Your task to perform on an android device: allow cookies in the chrome app Image 0: 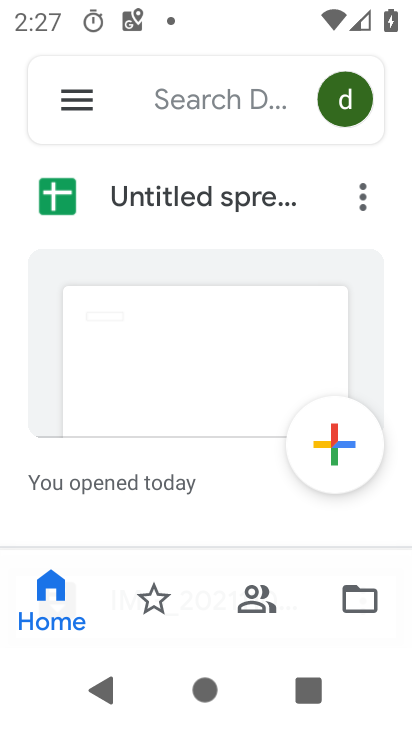
Step 0: press back button
Your task to perform on an android device: allow cookies in the chrome app Image 1: 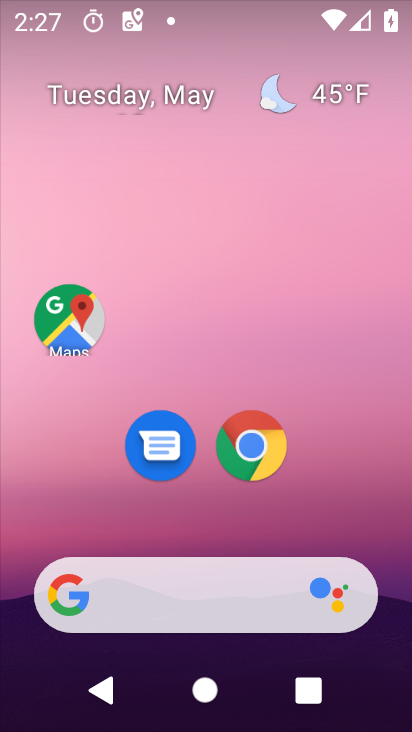
Step 1: click (255, 449)
Your task to perform on an android device: allow cookies in the chrome app Image 2: 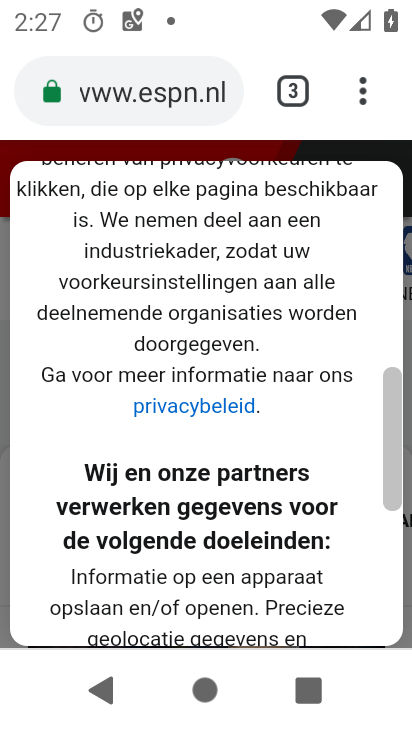
Step 2: drag from (366, 83) to (134, 474)
Your task to perform on an android device: allow cookies in the chrome app Image 3: 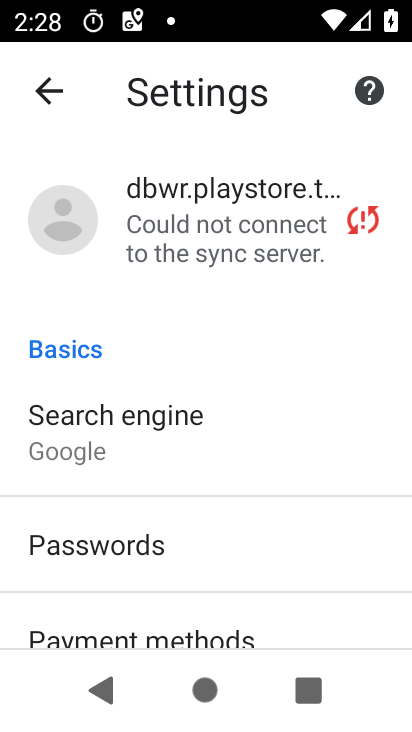
Step 3: drag from (167, 605) to (242, 318)
Your task to perform on an android device: allow cookies in the chrome app Image 4: 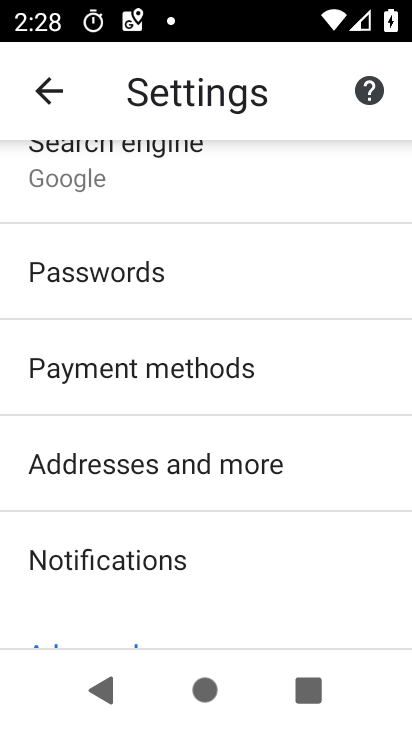
Step 4: drag from (202, 496) to (297, 551)
Your task to perform on an android device: allow cookies in the chrome app Image 5: 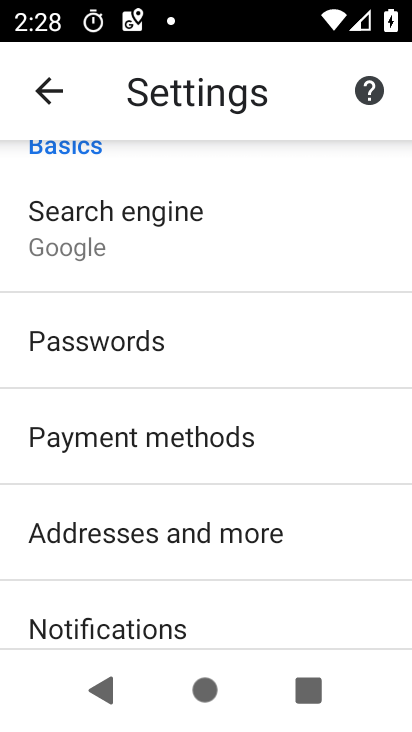
Step 5: drag from (250, 289) to (243, 324)
Your task to perform on an android device: allow cookies in the chrome app Image 6: 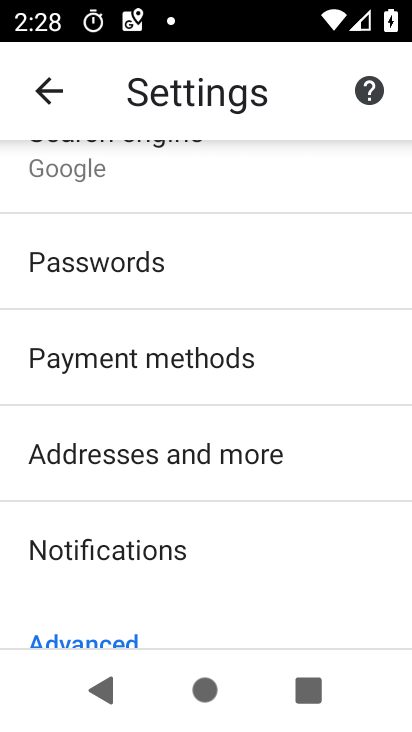
Step 6: drag from (228, 572) to (372, 82)
Your task to perform on an android device: allow cookies in the chrome app Image 7: 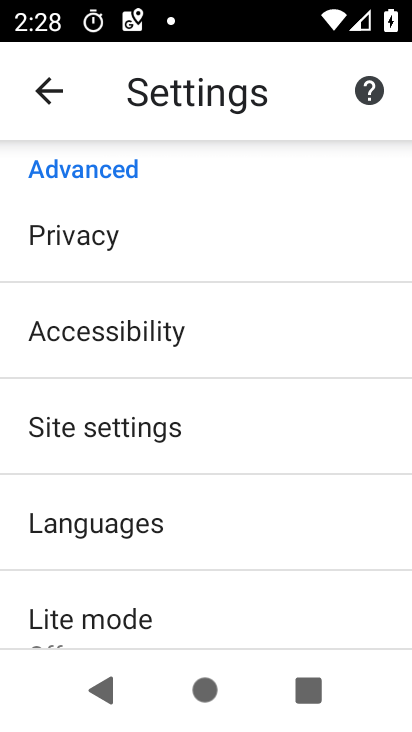
Step 7: click (132, 434)
Your task to perform on an android device: allow cookies in the chrome app Image 8: 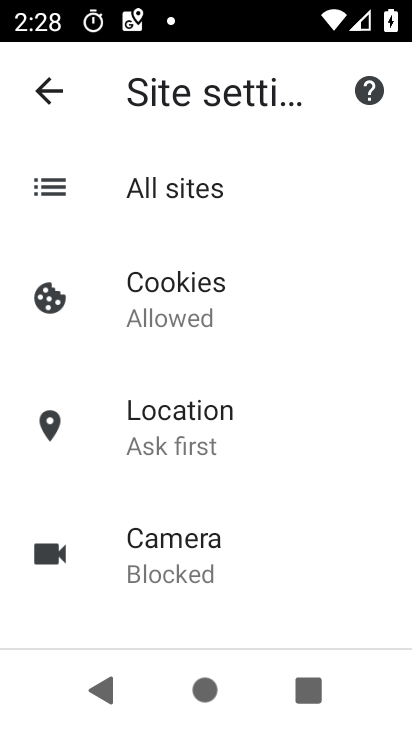
Step 8: click (160, 291)
Your task to perform on an android device: allow cookies in the chrome app Image 9: 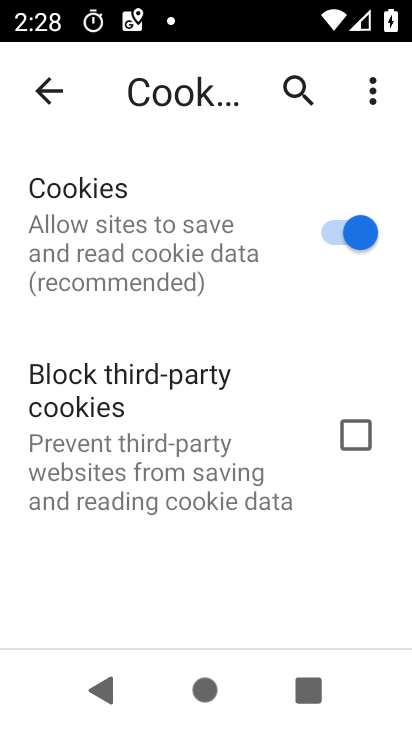
Step 9: task complete